Your task to perform on an android device: Open accessibility settings Image 0: 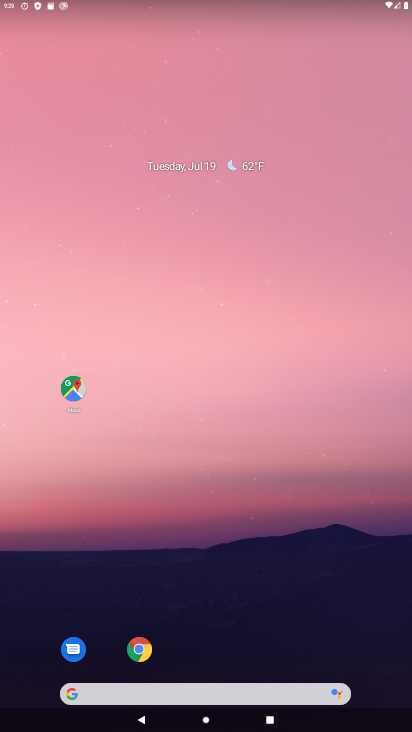
Step 0: drag from (242, 602) to (265, 87)
Your task to perform on an android device: Open accessibility settings Image 1: 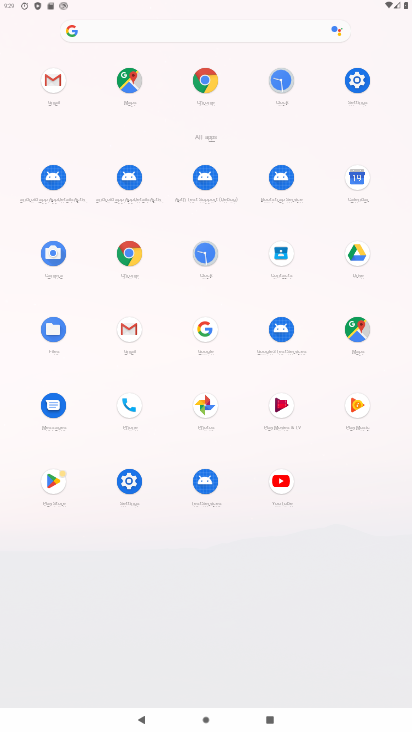
Step 1: click (129, 481)
Your task to perform on an android device: Open accessibility settings Image 2: 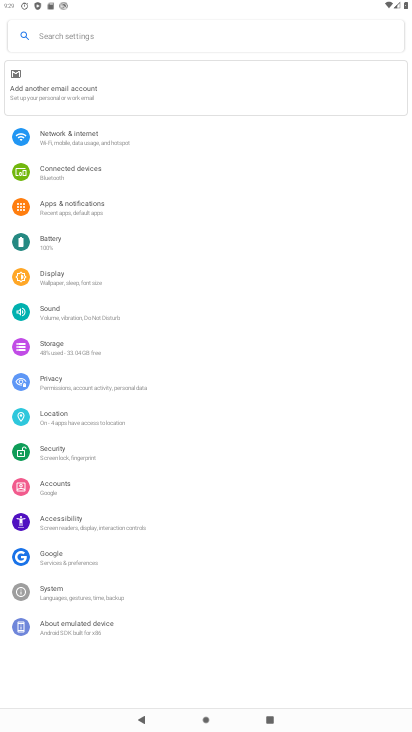
Step 2: click (113, 520)
Your task to perform on an android device: Open accessibility settings Image 3: 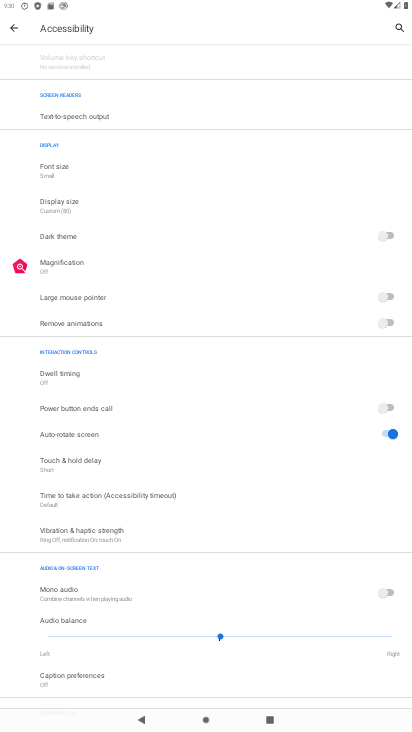
Step 3: task complete